Your task to perform on an android device: change the clock display to show seconds Image 0: 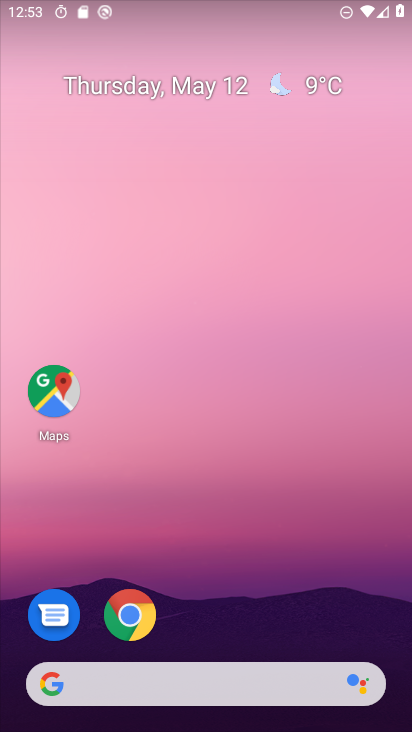
Step 0: drag from (314, 548) to (304, 115)
Your task to perform on an android device: change the clock display to show seconds Image 1: 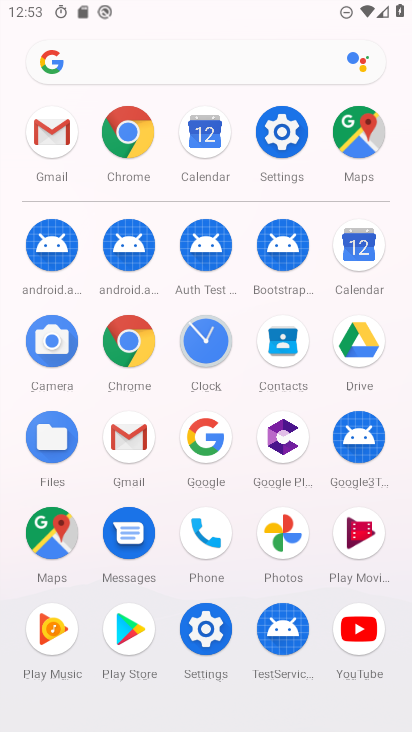
Step 1: click (197, 342)
Your task to perform on an android device: change the clock display to show seconds Image 2: 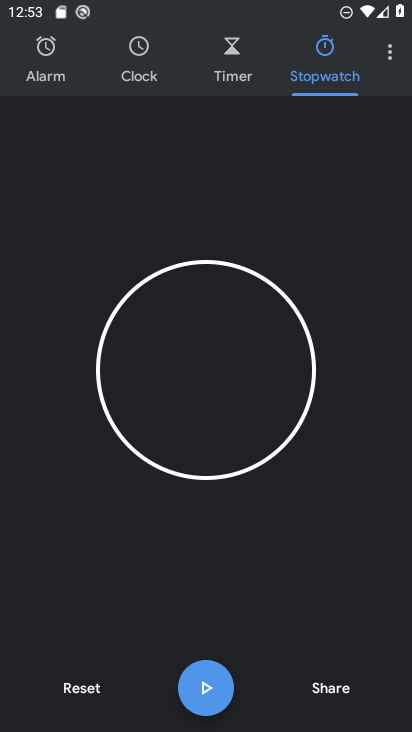
Step 2: click (397, 45)
Your task to perform on an android device: change the clock display to show seconds Image 3: 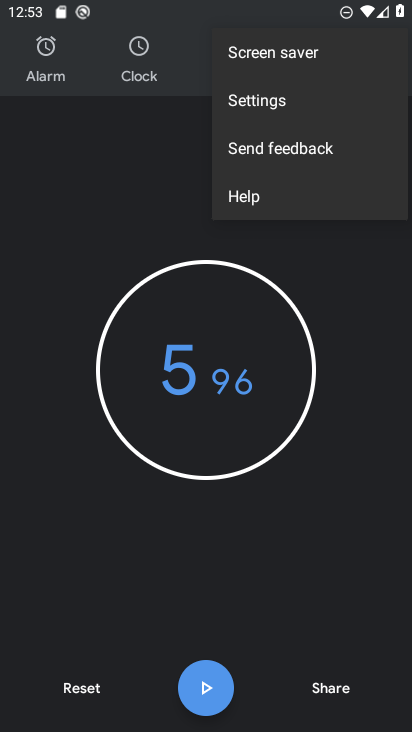
Step 3: click (272, 105)
Your task to perform on an android device: change the clock display to show seconds Image 4: 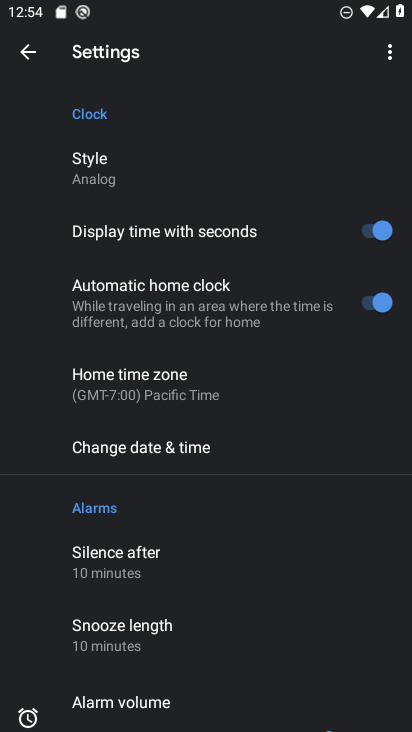
Step 4: click (377, 233)
Your task to perform on an android device: change the clock display to show seconds Image 5: 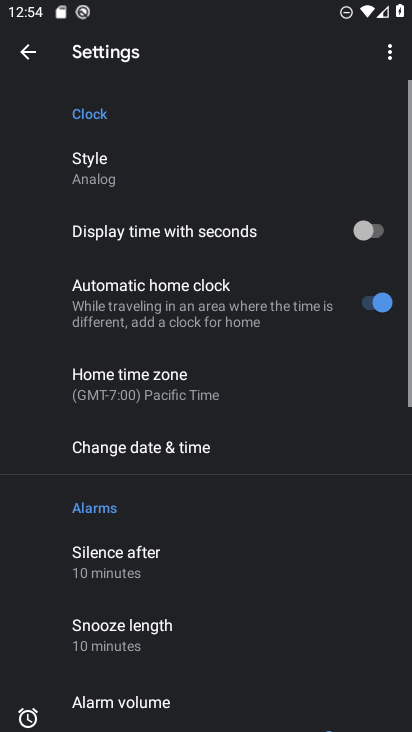
Step 5: task complete